Your task to perform on an android device: toggle data saver in the chrome app Image 0: 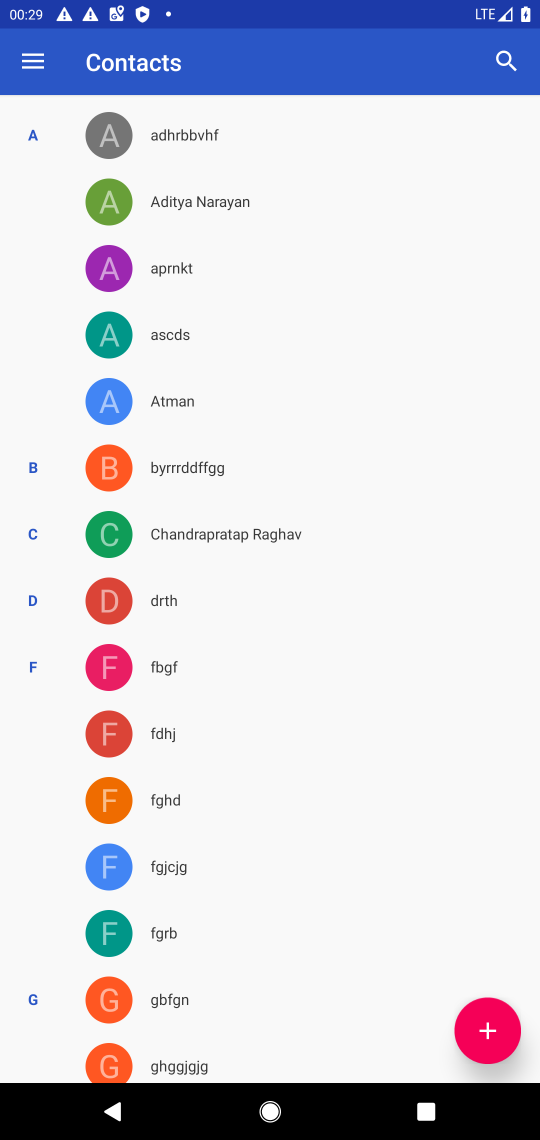
Step 0: press home button
Your task to perform on an android device: toggle data saver in the chrome app Image 1: 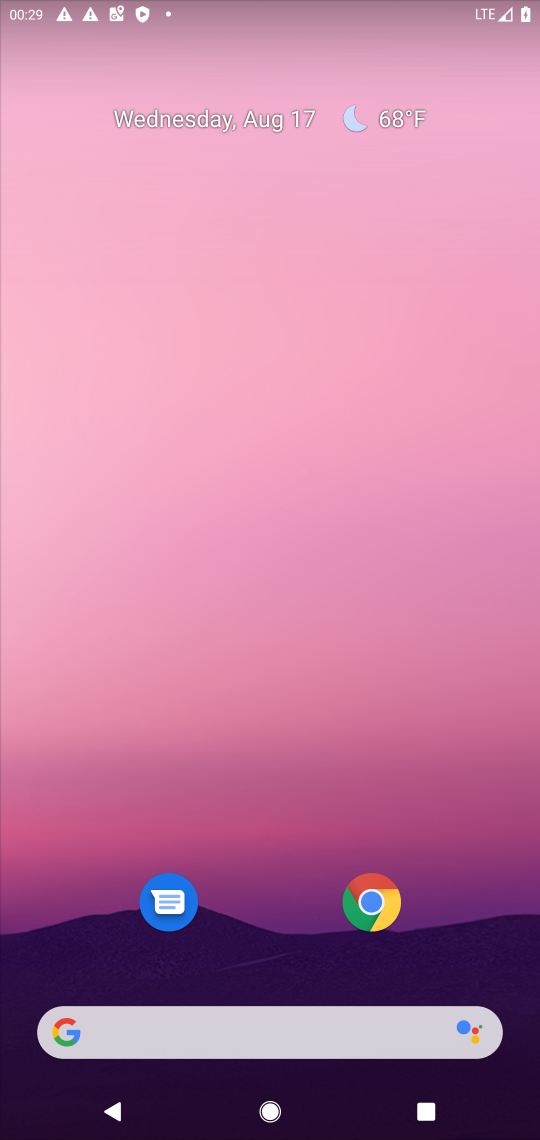
Step 1: click (373, 901)
Your task to perform on an android device: toggle data saver in the chrome app Image 2: 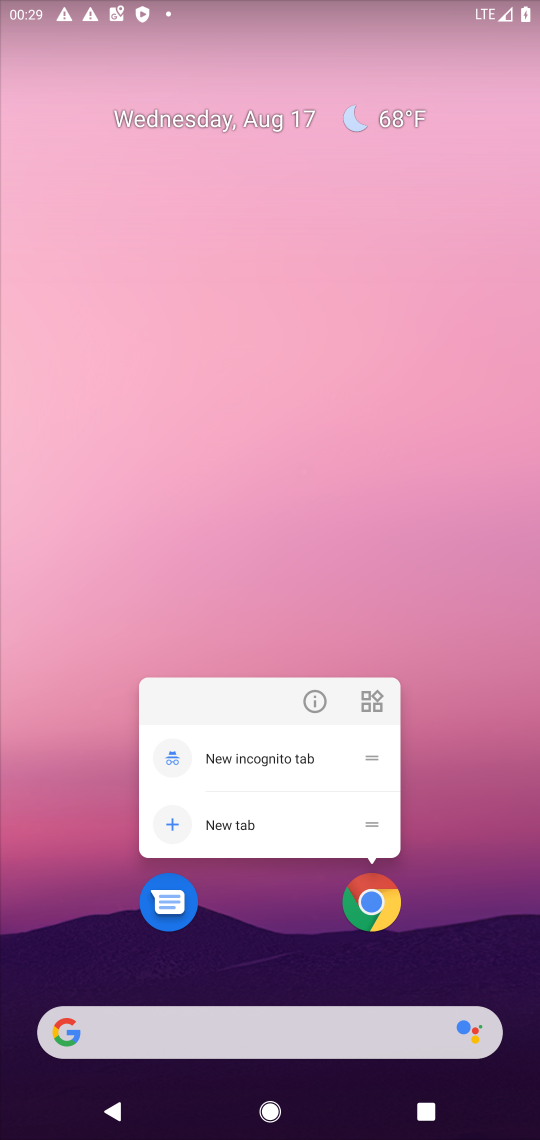
Step 2: click (395, 915)
Your task to perform on an android device: toggle data saver in the chrome app Image 3: 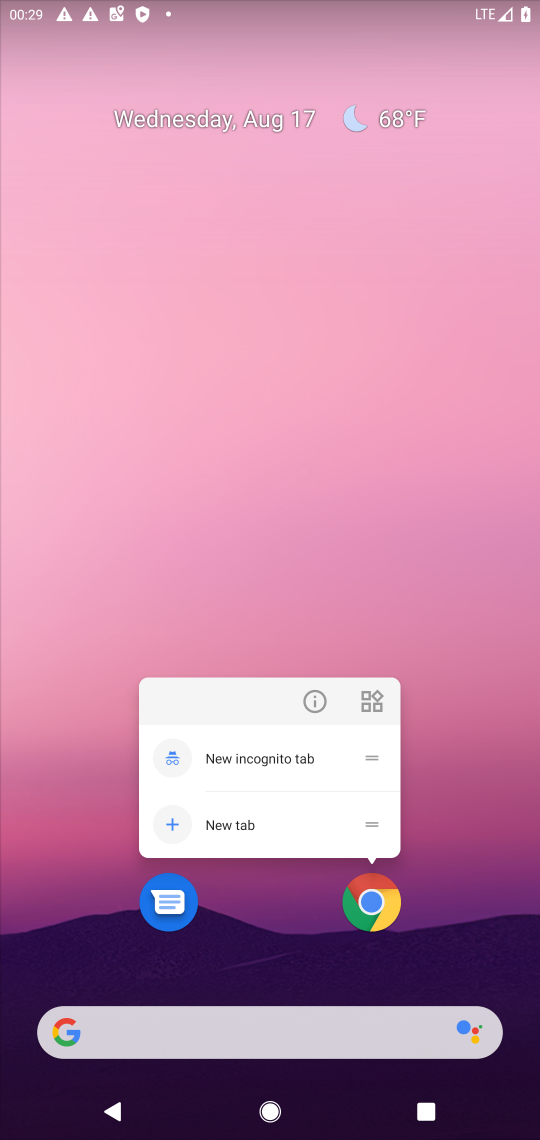
Step 3: click (377, 894)
Your task to perform on an android device: toggle data saver in the chrome app Image 4: 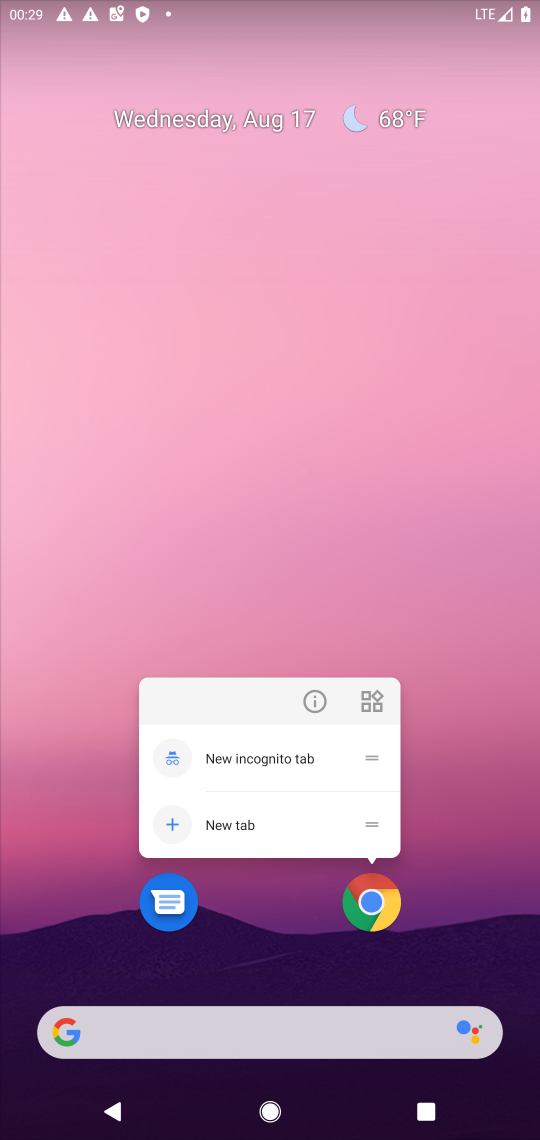
Step 4: click (378, 889)
Your task to perform on an android device: toggle data saver in the chrome app Image 5: 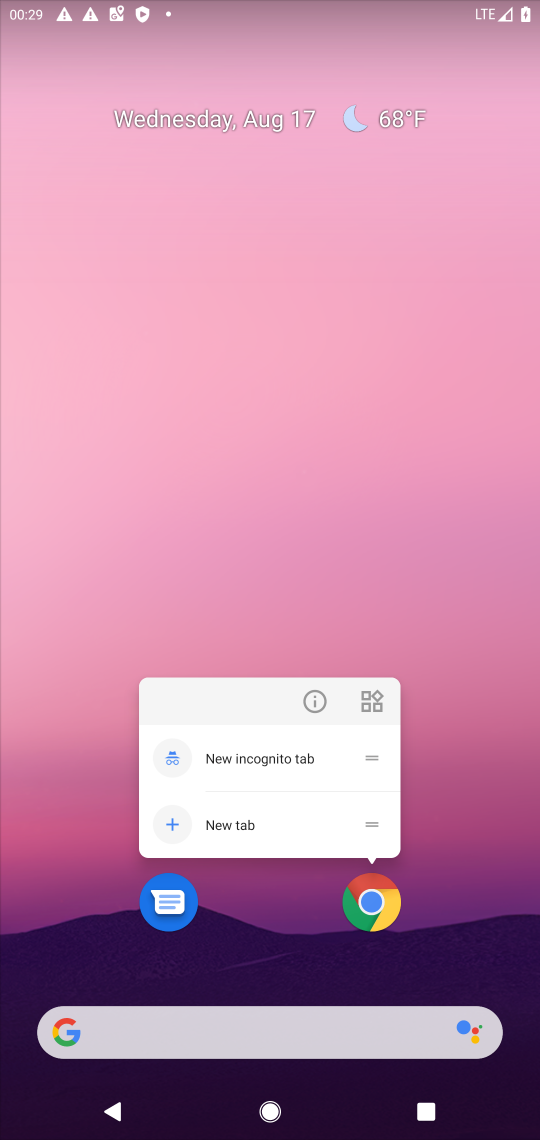
Step 5: click (369, 903)
Your task to perform on an android device: toggle data saver in the chrome app Image 6: 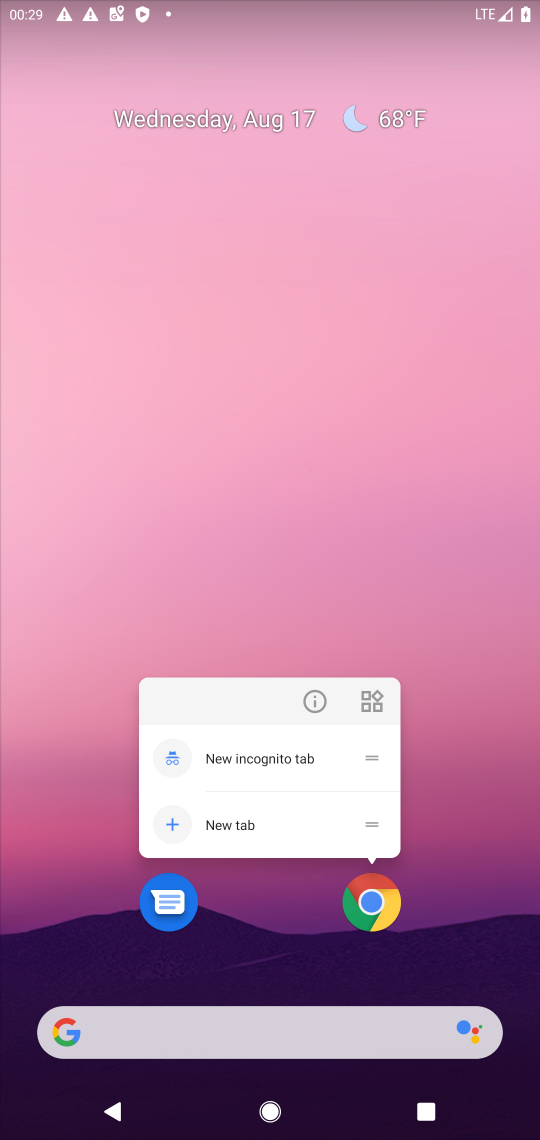
Step 6: click (369, 904)
Your task to perform on an android device: toggle data saver in the chrome app Image 7: 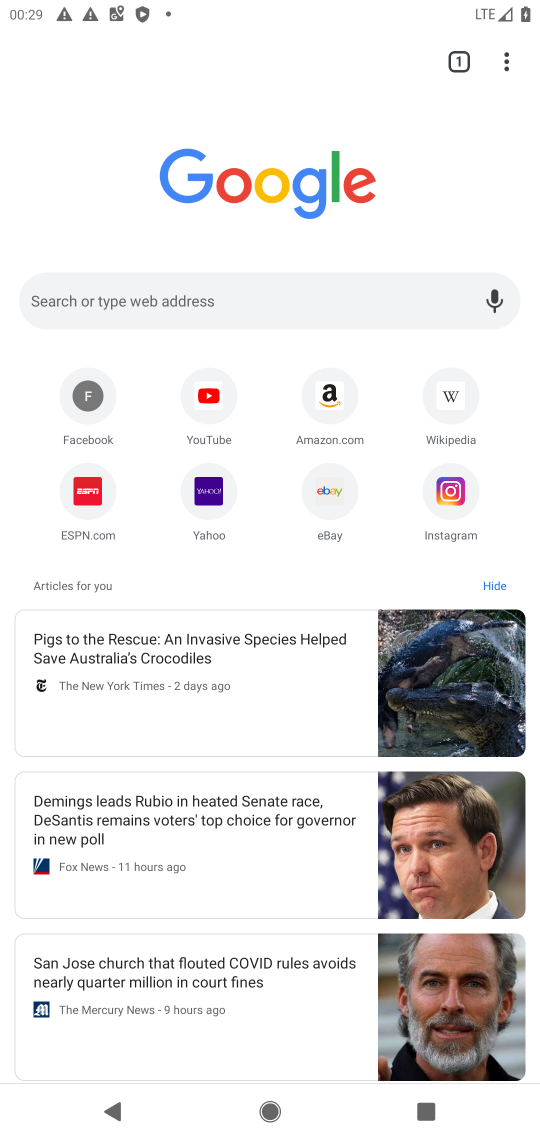
Step 7: click (510, 62)
Your task to perform on an android device: toggle data saver in the chrome app Image 8: 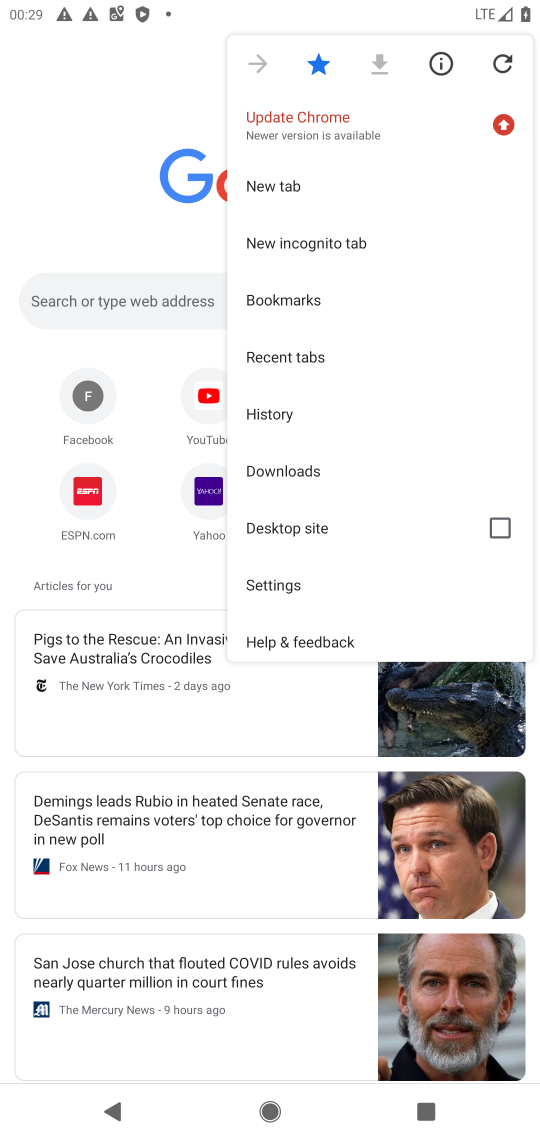
Step 8: click (274, 584)
Your task to perform on an android device: toggle data saver in the chrome app Image 9: 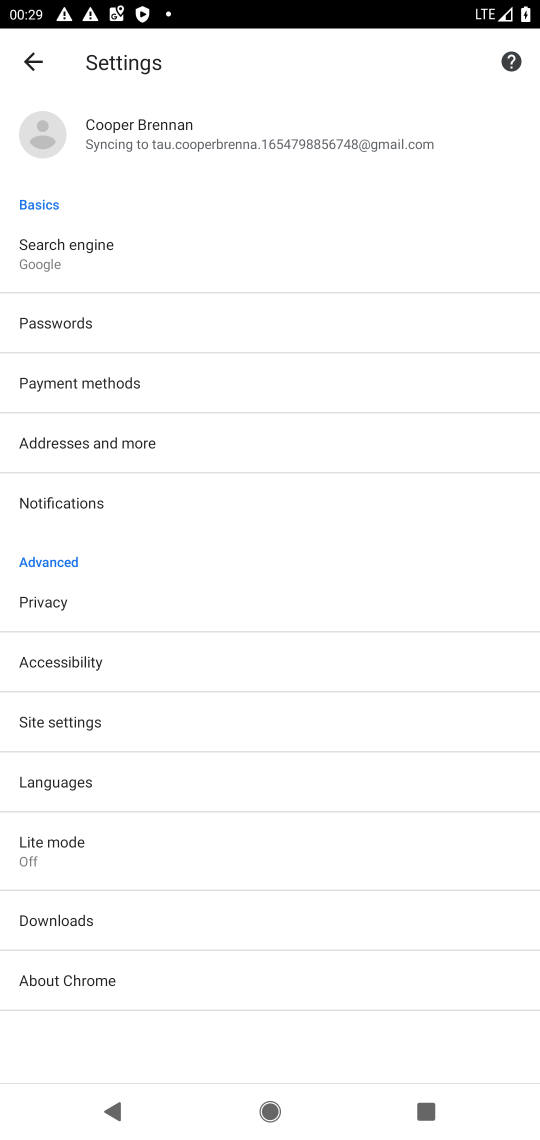
Step 9: click (64, 856)
Your task to perform on an android device: toggle data saver in the chrome app Image 10: 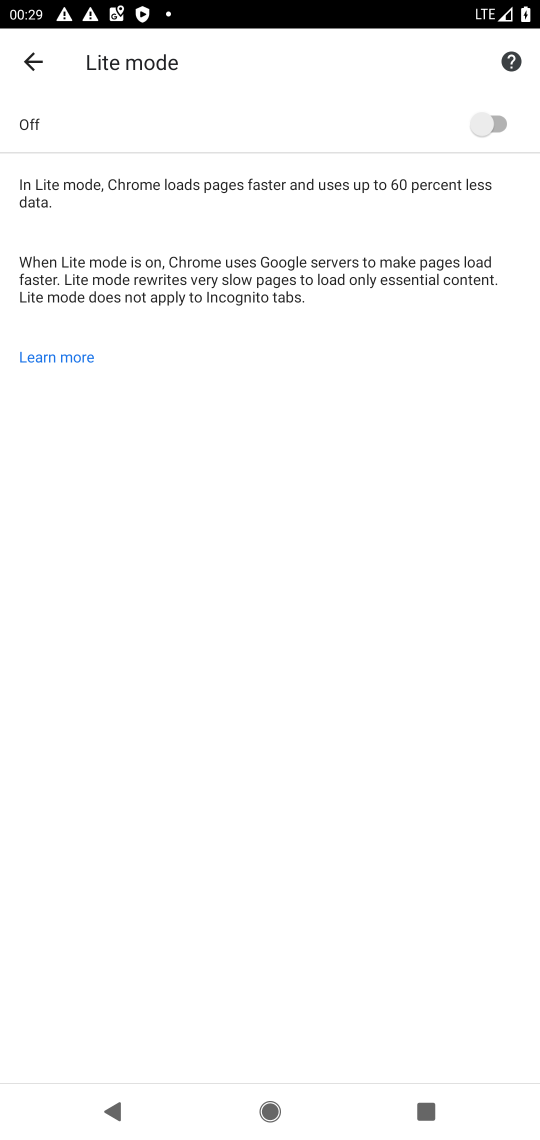
Step 10: click (502, 120)
Your task to perform on an android device: toggle data saver in the chrome app Image 11: 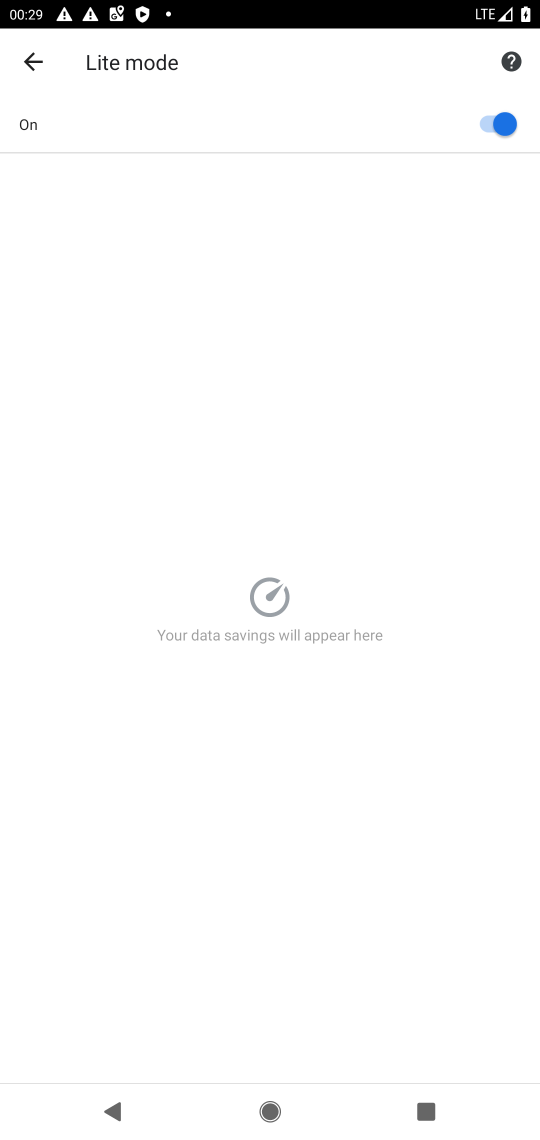
Step 11: task complete